Your task to perform on an android device: toggle priority inbox in the gmail app Image 0: 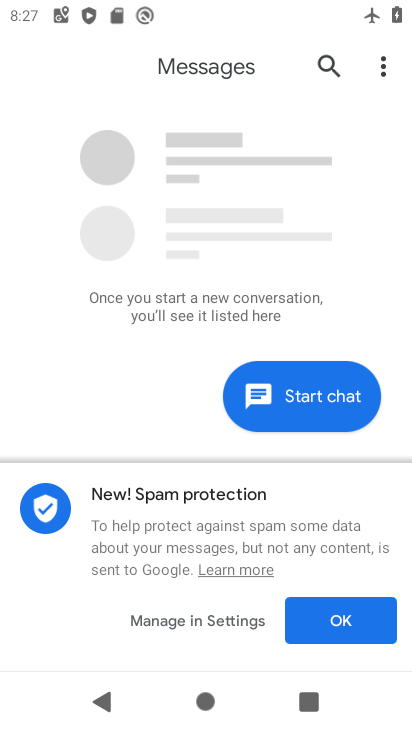
Step 0: press home button
Your task to perform on an android device: toggle priority inbox in the gmail app Image 1: 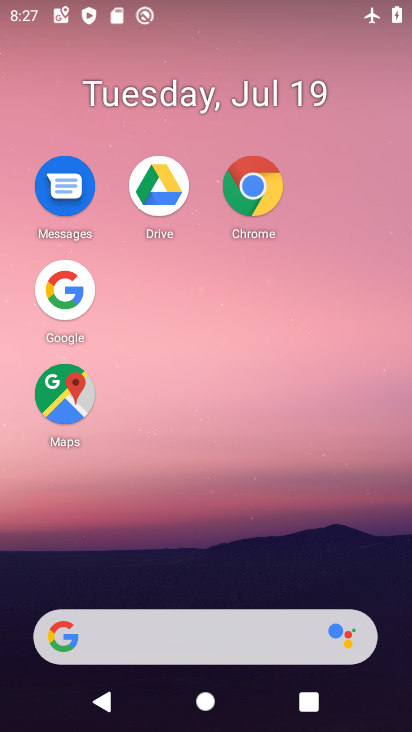
Step 1: drag from (247, 582) to (213, 4)
Your task to perform on an android device: toggle priority inbox in the gmail app Image 2: 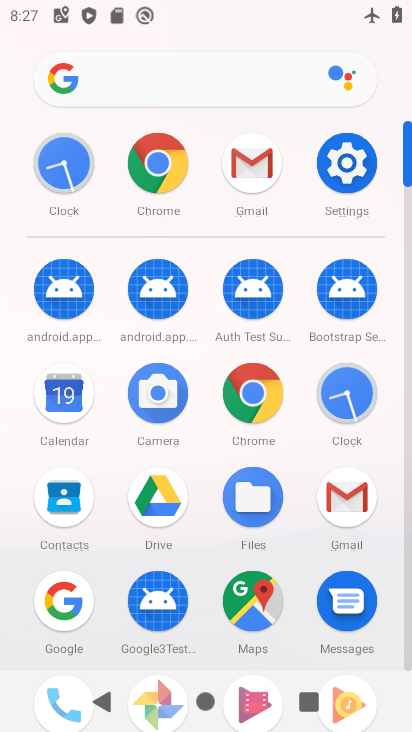
Step 2: click (244, 179)
Your task to perform on an android device: toggle priority inbox in the gmail app Image 3: 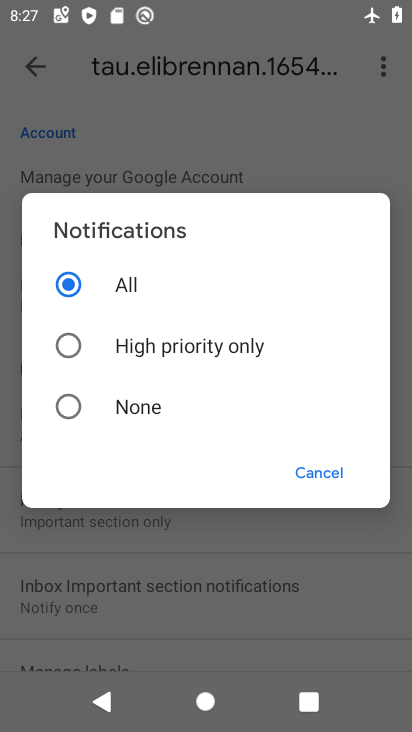
Step 3: click (315, 468)
Your task to perform on an android device: toggle priority inbox in the gmail app Image 4: 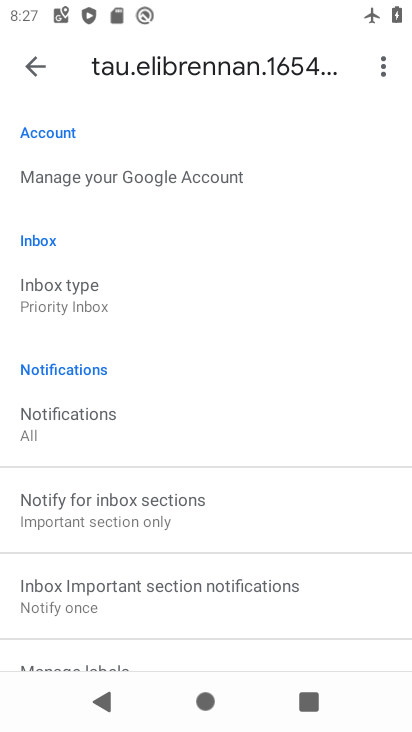
Step 4: click (63, 310)
Your task to perform on an android device: toggle priority inbox in the gmail app Image 5: 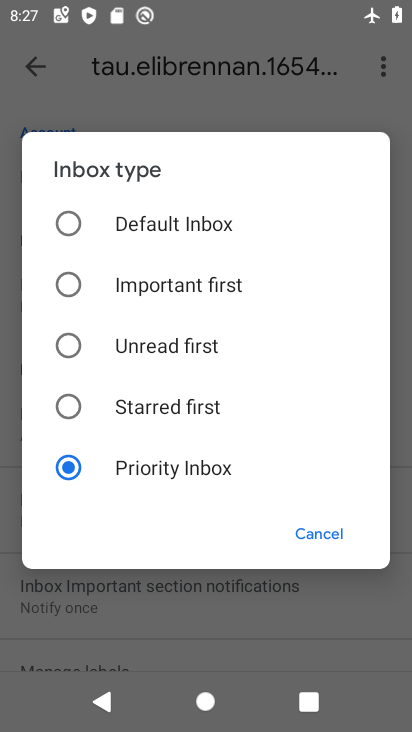
Step 5: click (94, 407)
Your task to perform on an android device: toggle priority inbox in the gmail app Image 6: 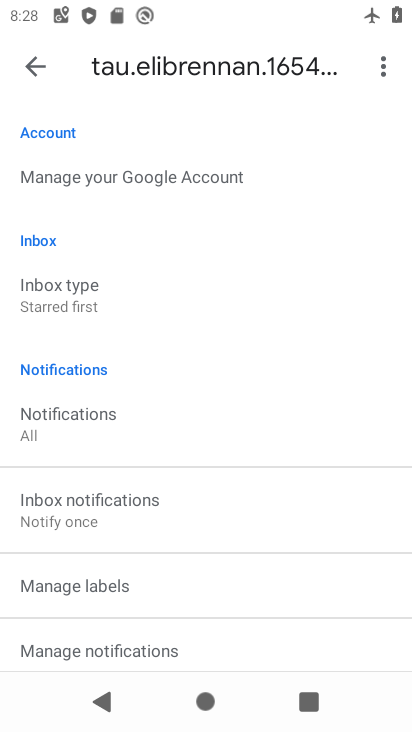
Step 6: task complete